Your task to perform on an android device: Clear the shopping cart on walmart.com. Image 0: 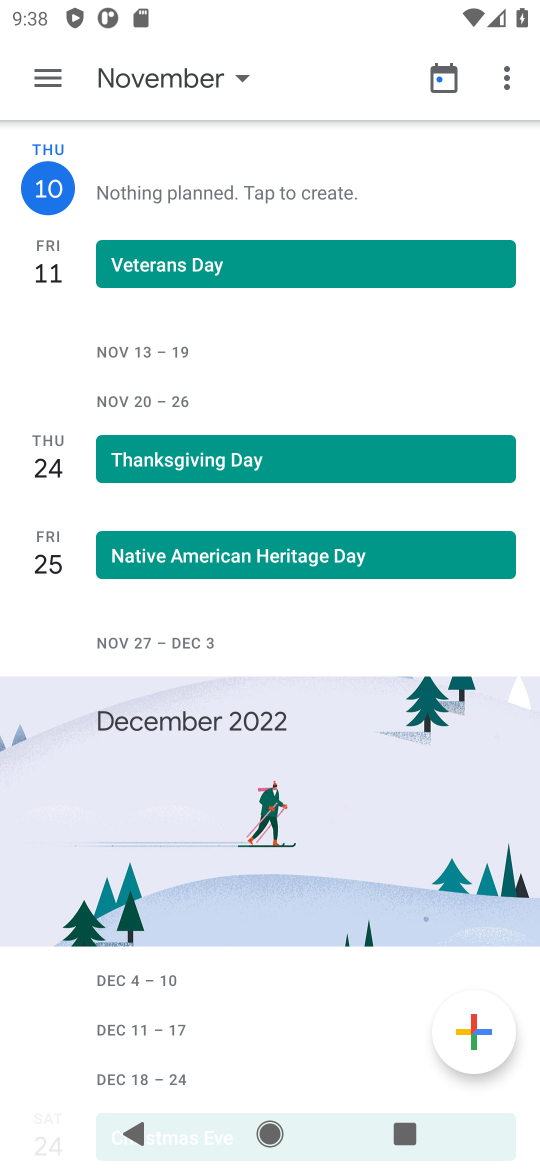
Step 0: press home button
Your task to perform on an android device: Clear the shopping cart on walmart.com. Image 1: 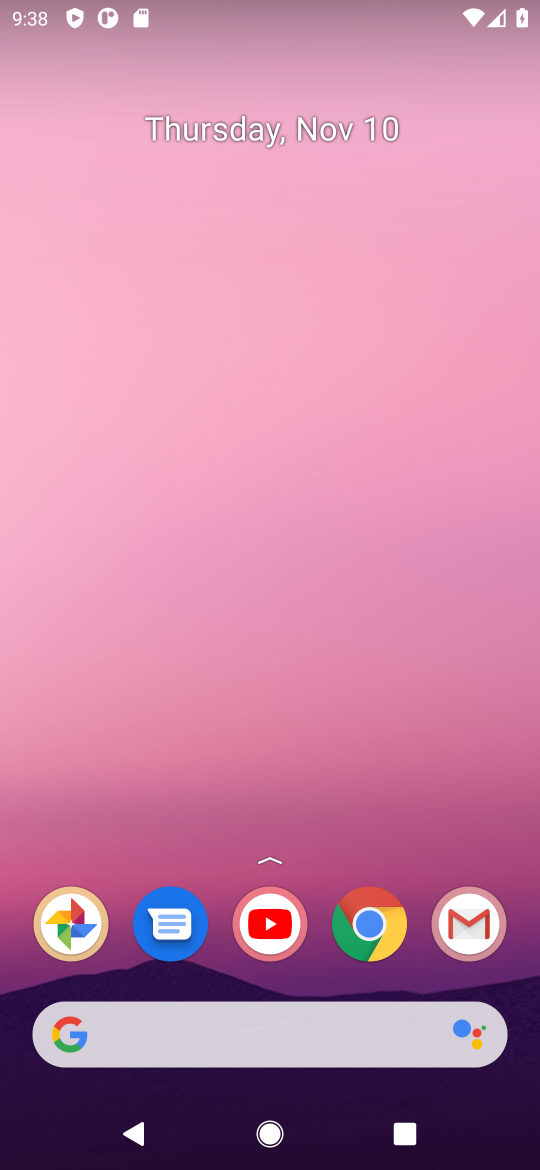
Step 1: click (368, 951)
Your task to perform on an android device: Clear the shopping cart on walmart.com. Image 2: 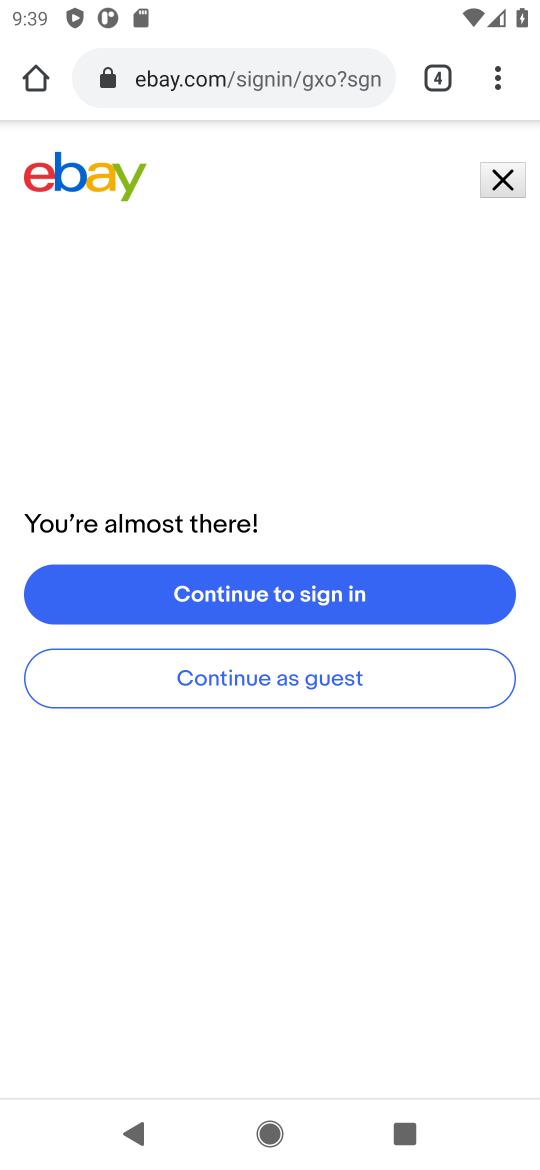
Step 2: click (189, 80)
Your task to perform on an android device: Clear the shopping cart on walmart.com. Image 3: 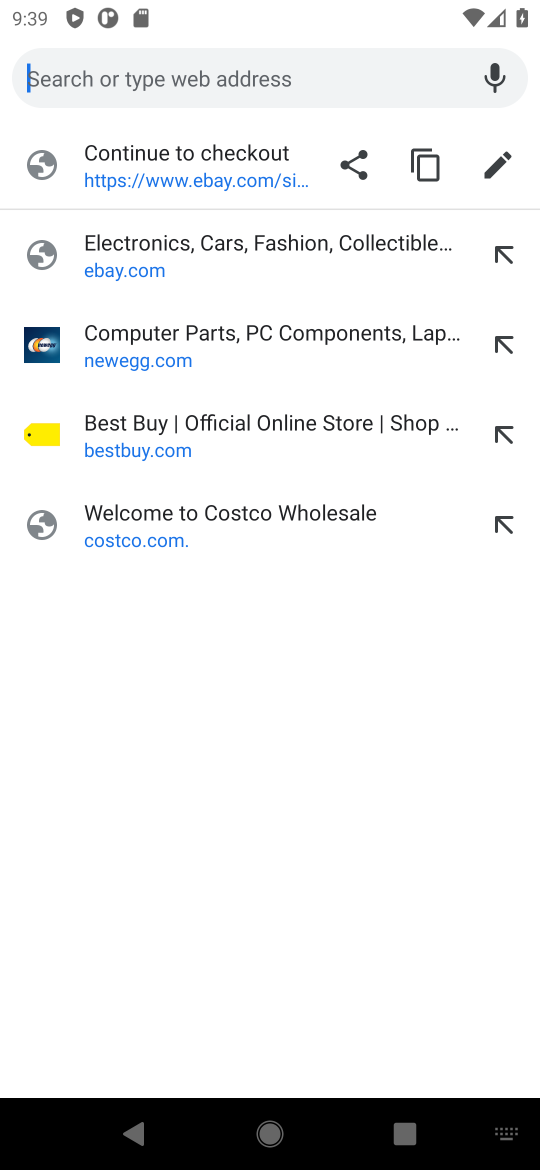
Step 3: type "walmart.com"
Your task to perform on an android device: Clear the shopping cart on walmart.com. Image 4: 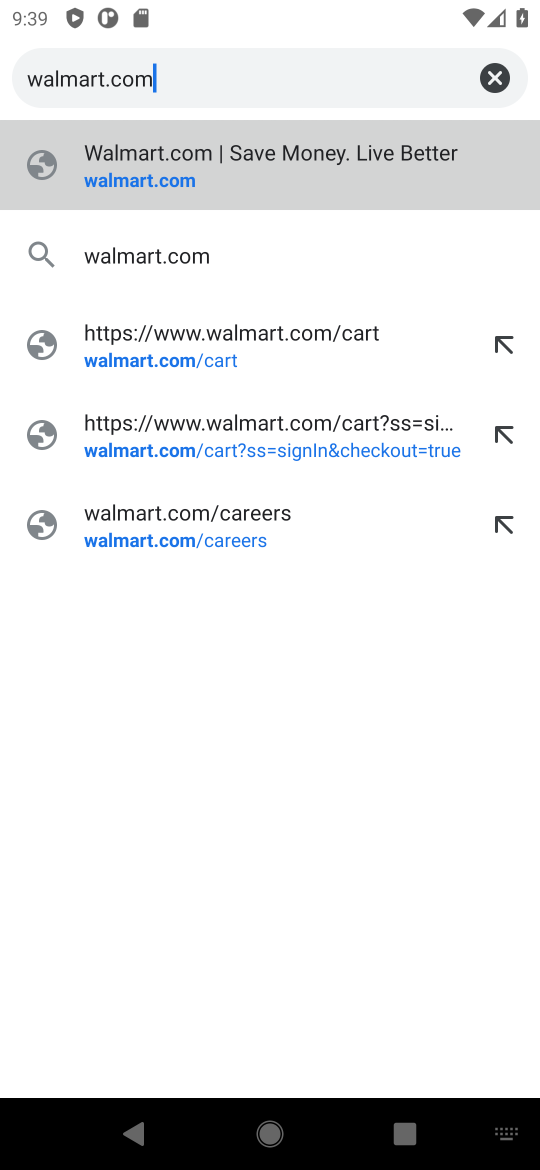
Step 4: click (109, 181)
Your task to perform on an android device: Clear the shopping cart on walmart.com. Image 5: 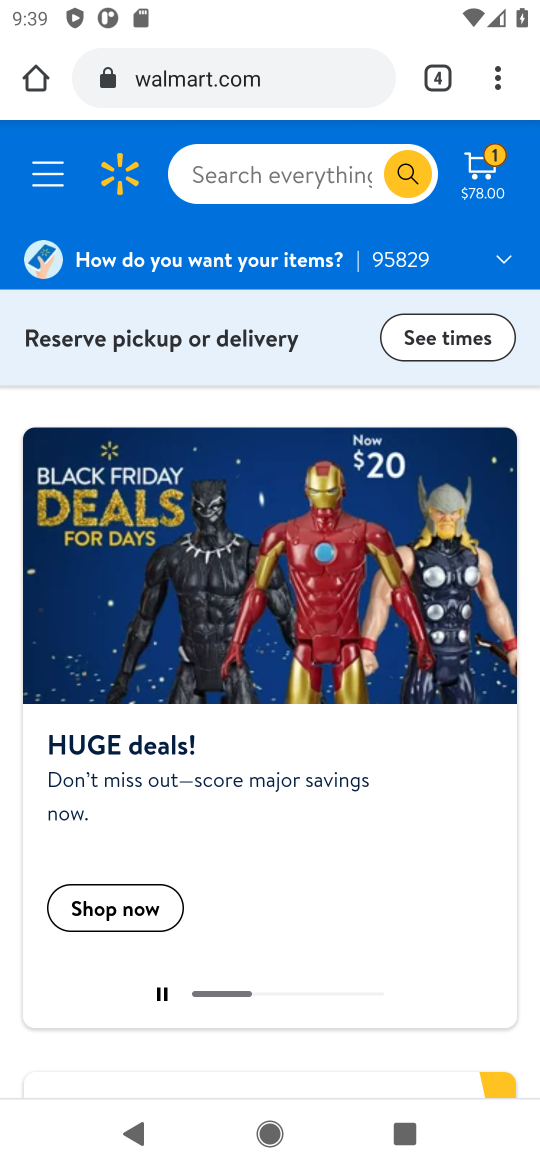
Step 5: click (476, 173)
Your task to perform on an android device: Clear the shopping cart on walmart.com. Image 6: 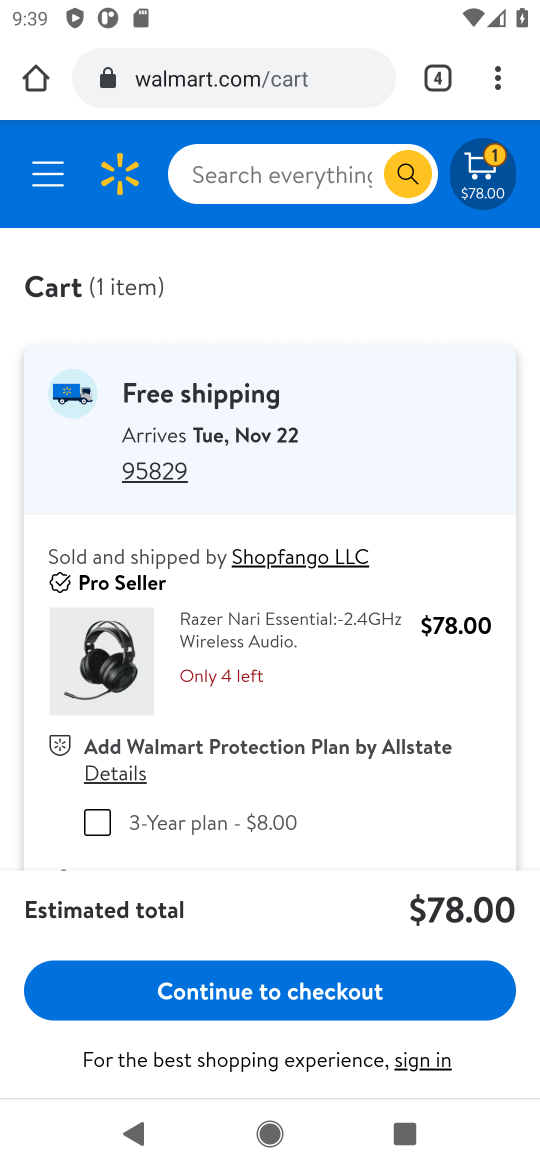
Step 6: drag from (181, 786) to (199, 445)
Your task to perform on an android device: Clear the shopping cart on walmart.com. Image 7: 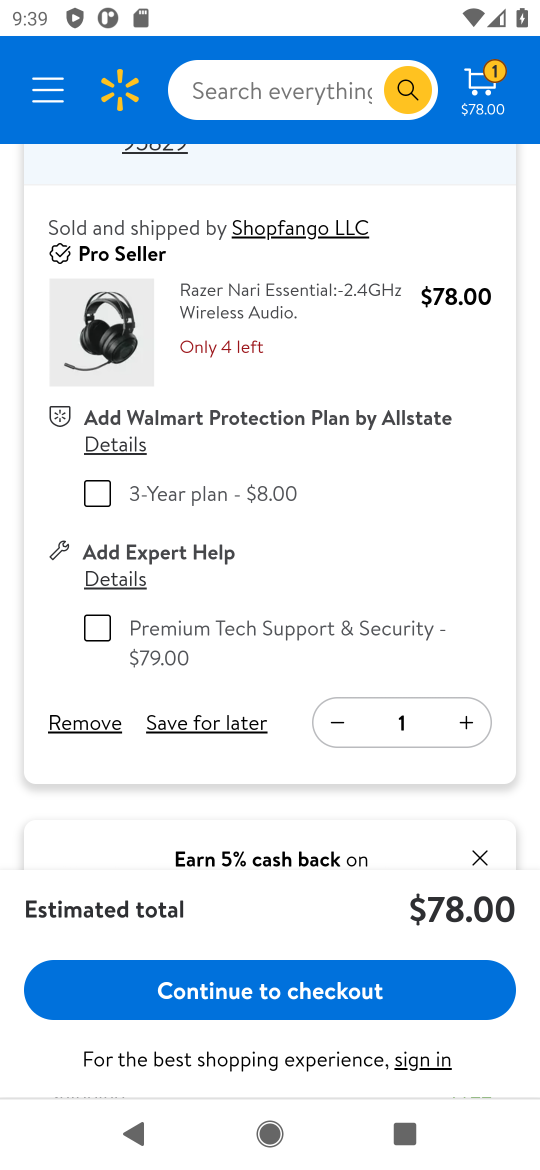
Step 7: click (67, 730)
Your task to perform on an android device: Clear the shopping cart on walmart.com. Image 8: 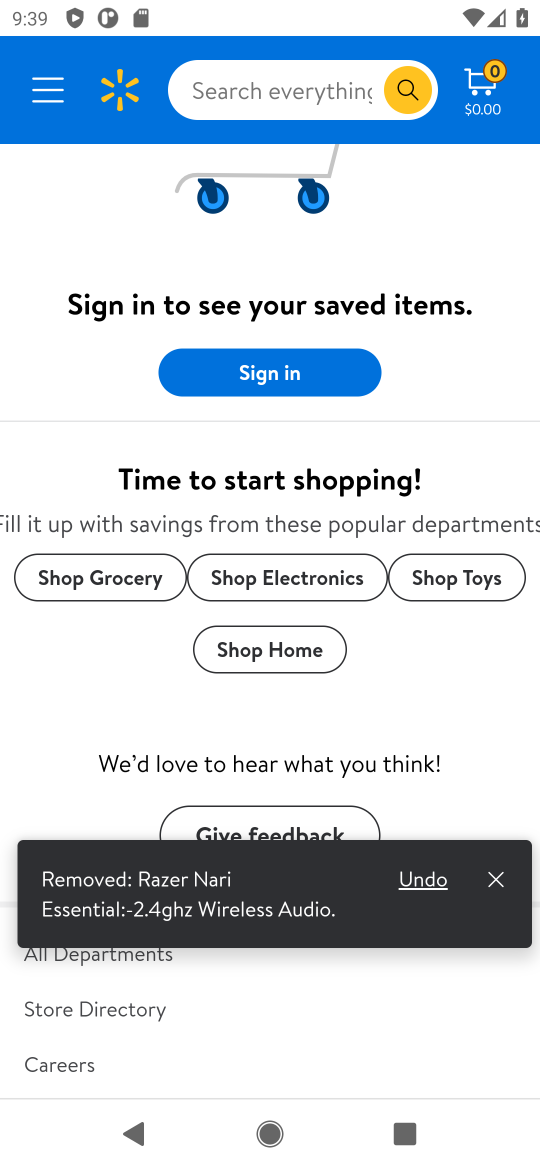
Step 8: task complete